Your task to perform on an android device: turn off notifications in google photos Image 0: 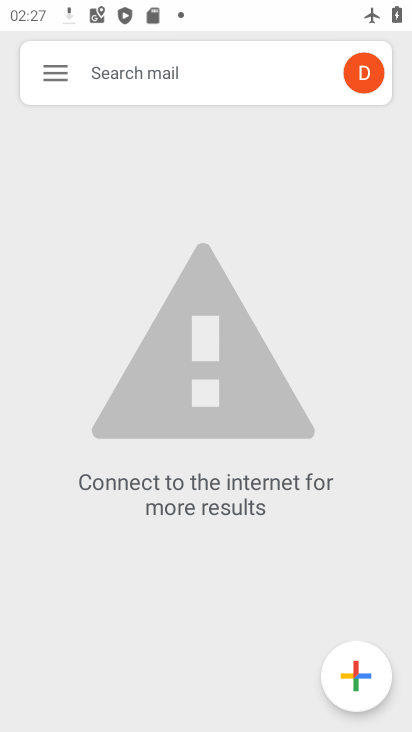
Step 0: press home button
Your task to perform on an android device: turn off notifications in google photos Image 1: 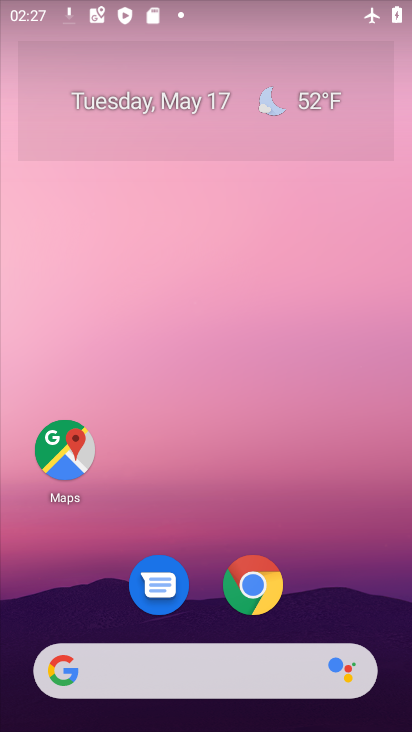
Step 1: drag from (310, 491) to (280, 7)
Your task to perform on an android device: turn off notifications in google photos Image 2: 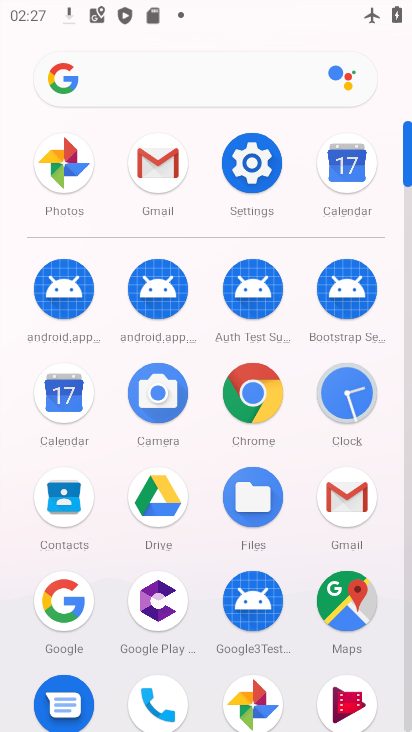
Step 2: click (231, 158)
Your task to perform on an android device: turn off notifications in google photos Image 3: 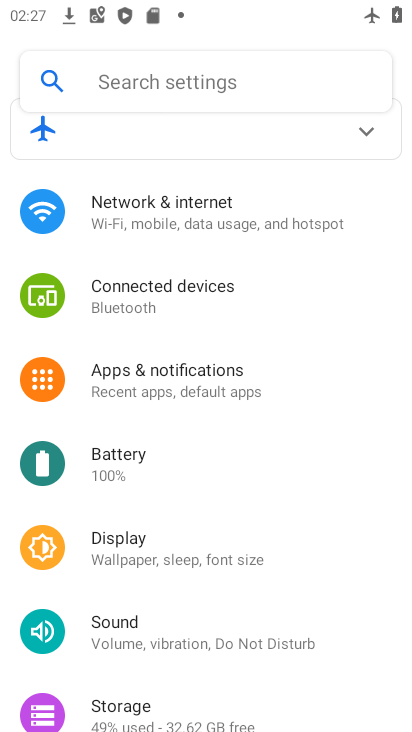
Step 3: click (232, 371)
Your task to perform on an android device: turn off notifications in google photos Image 4: 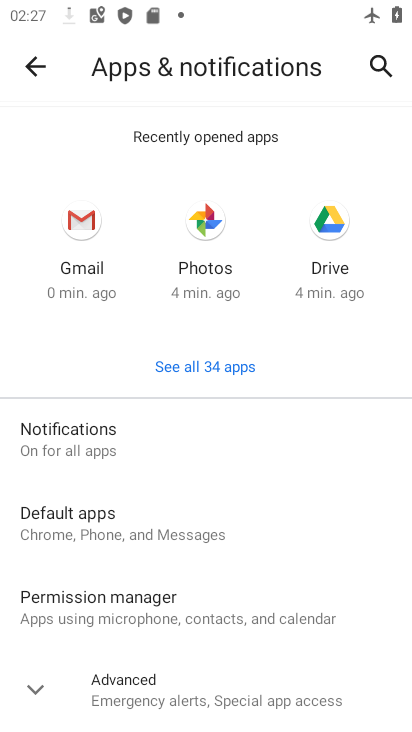
Step 4: click (208, 218)
Your task to perform on an android device: turn off notifications in google photos Image 5: 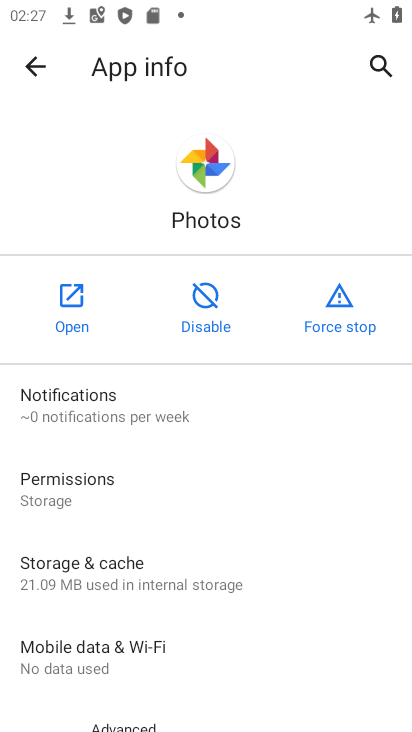
Step 5: click (169, 386)
Your task to perform on an android device: turn off notifications in google photos Image 6: 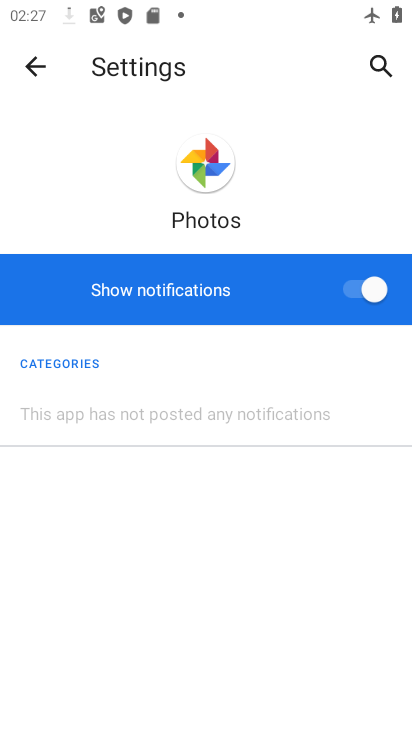
Step 6: click (351, 288)
Your task to perform on an android device: turn off notifications in google photos Image 7: 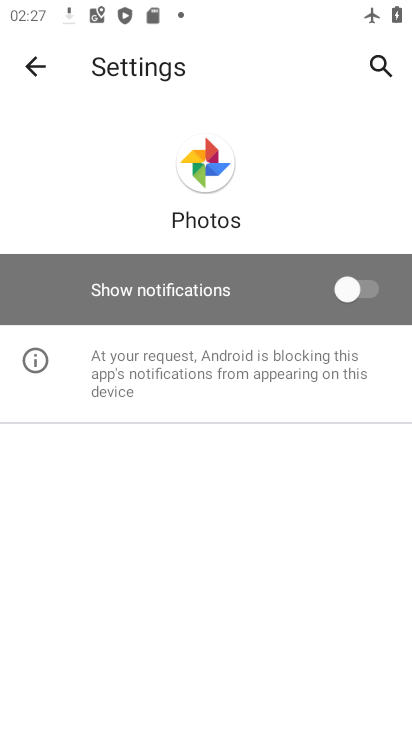
Step 7: task complete